Your task to perform on an android device: change alarm snooze length Image 0: 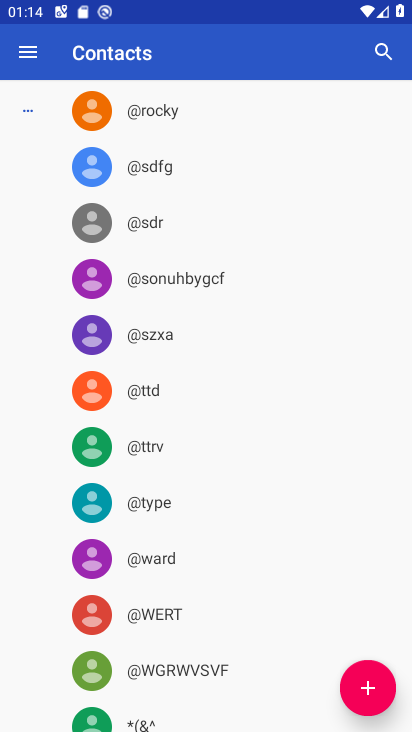
Step 0: press home button
Your task to perform on an android device: change alarm snooze length Image 1: 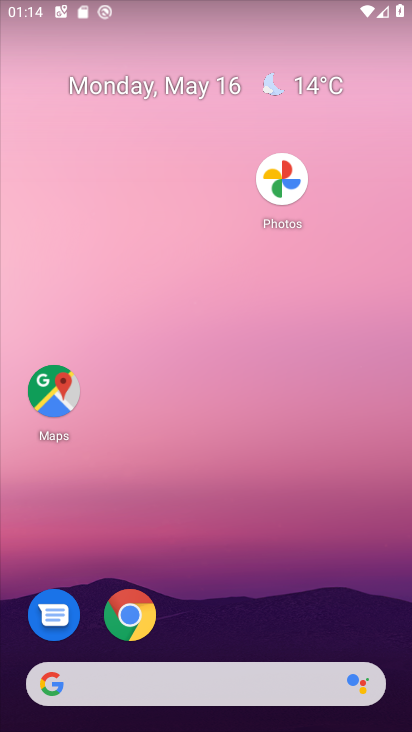
Step 1: drag from (336, 585) to (339, 99)
Your task to perform on an android device: change alarm snooze length Image 2: 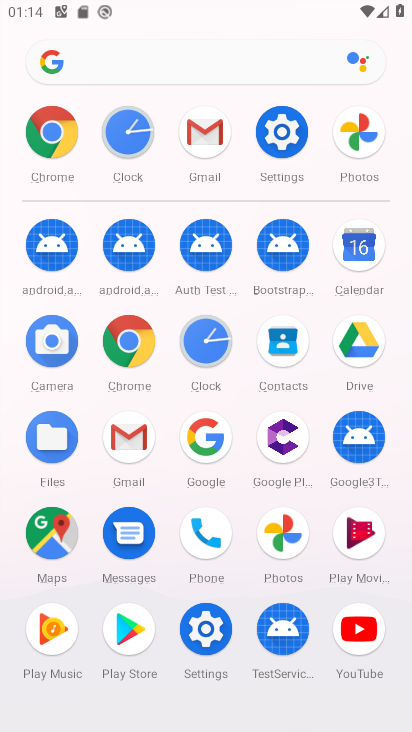
Step 2: click (210, 351)
Your task to perform on an android device: change alarm snooze length Image 3: 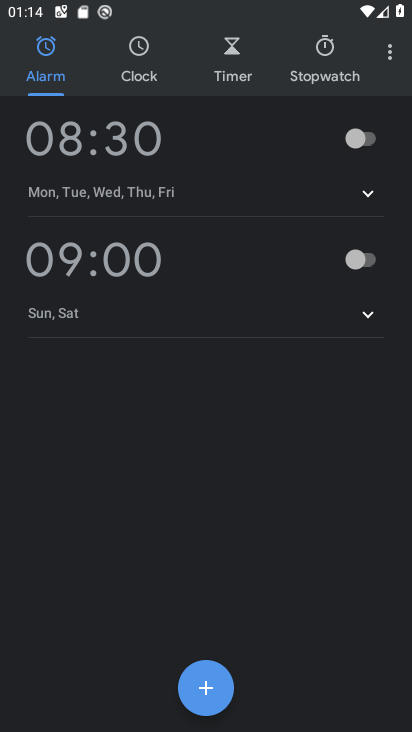
Step 3: drag from (385, 69) to (281, 108)
Your task to perform on an android device: change alarm snooze length Image 4: 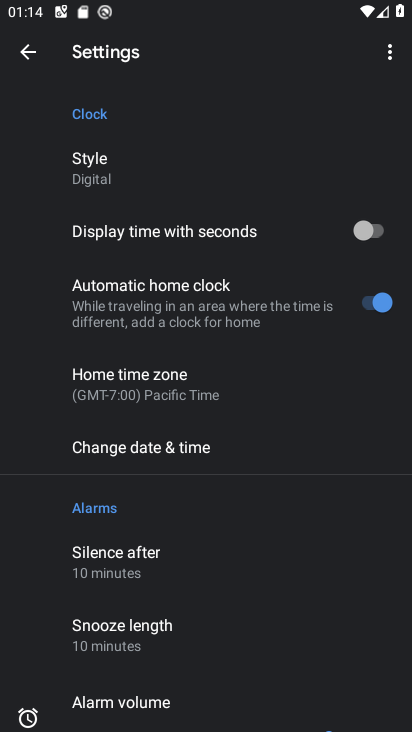
Step 4: click (196, 634)
Your task to perform on an android device: change alarm snooze length Image 5: 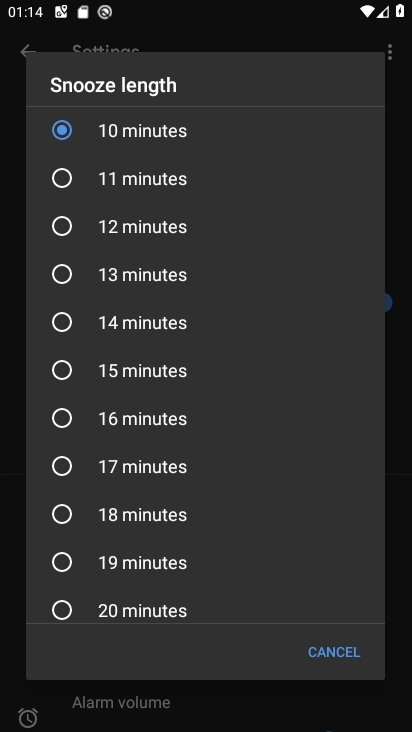
Step 5: click (161, 521)
Your task to perform on an android device: change alarm snooze length Image 6: 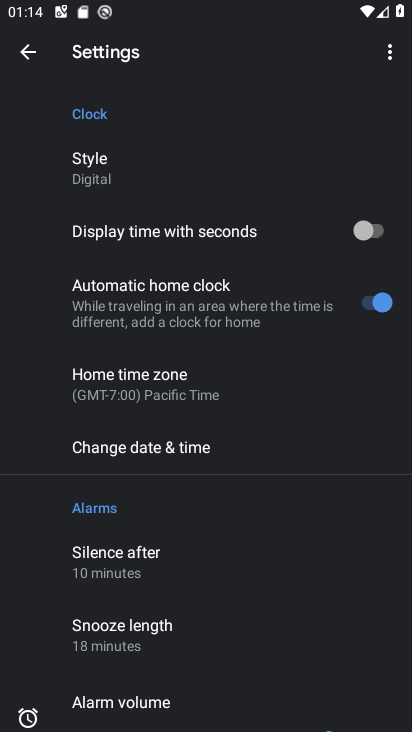
Step 6: task complete